Your task to perform on an android device: Open Chrome and go to settings Image 0: 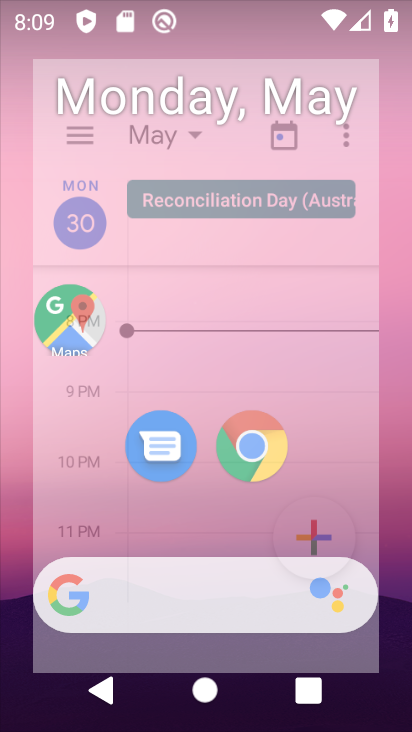
Step 0: press home button
Your task to perform on an android device: Open Chrome and go to settings Image 1: 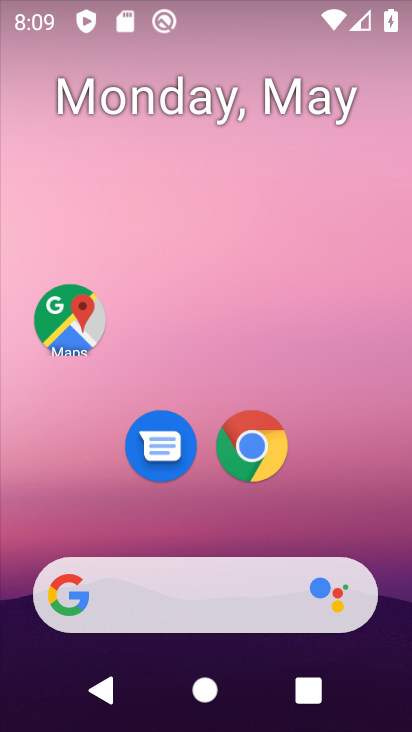
Step 1: click (250, 437)
Your task to perform on an android device: Open Chrome and go to settings Image 2: 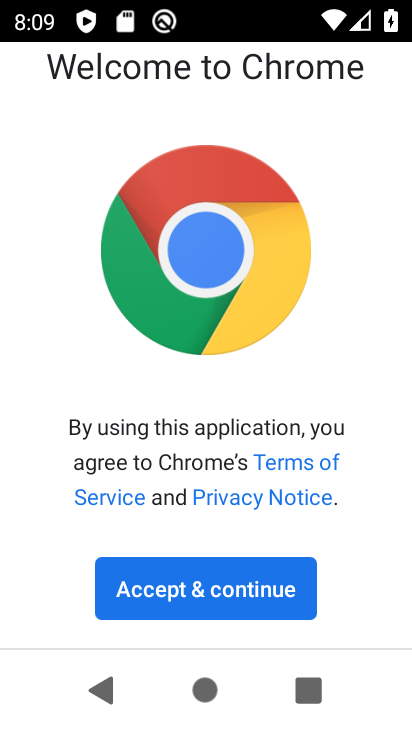
Step 2: click (200, 585)
Your task to perform on an android device: Open Chrome and go to settings Image 3: 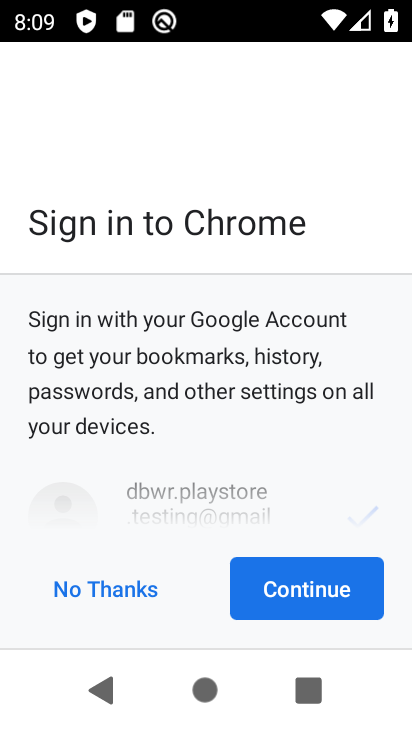
Step 3: click (306, 579)
Your task to perform on an android device: Open Chrome and go to settings Image 4: 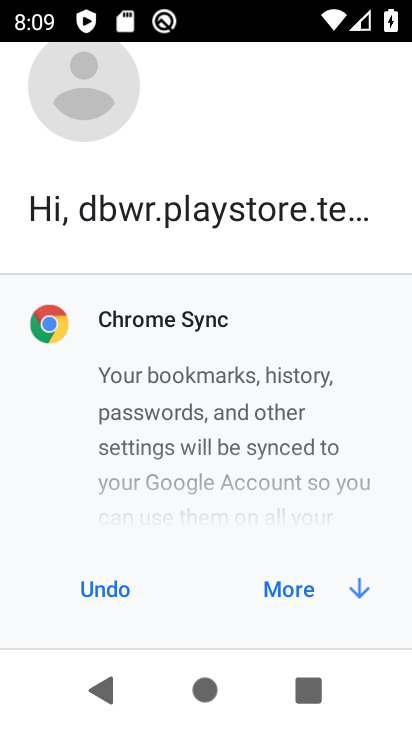
Step 4: click (298, 583)
Your task to perform on an android device: Open Chrome and go to settings Image 5: 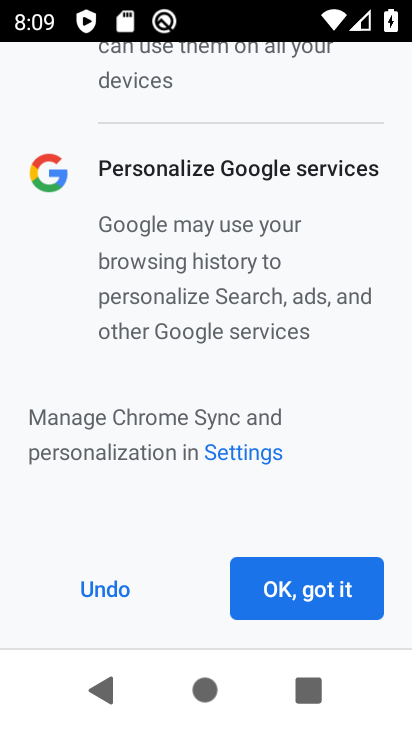
Step 5: click (298, 583)
Your task to perform on an android device: Open Chrome and go to settings Image 6: 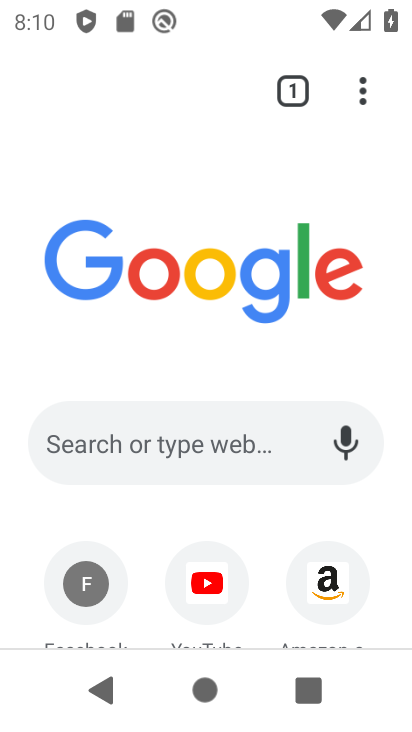
Step 6: click (360, 94)
Your task to perform on an android device: Open Chrome and go to settings Image 7: 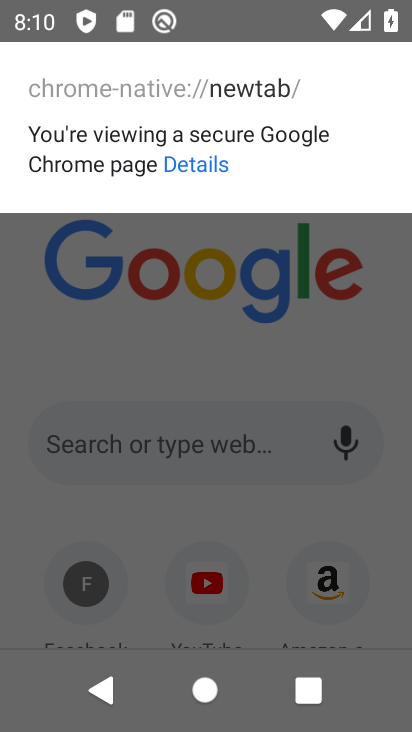
Step 7: click (244, 337)
Your task to perform on an android device: Open Chrome and go to settings Image 8: 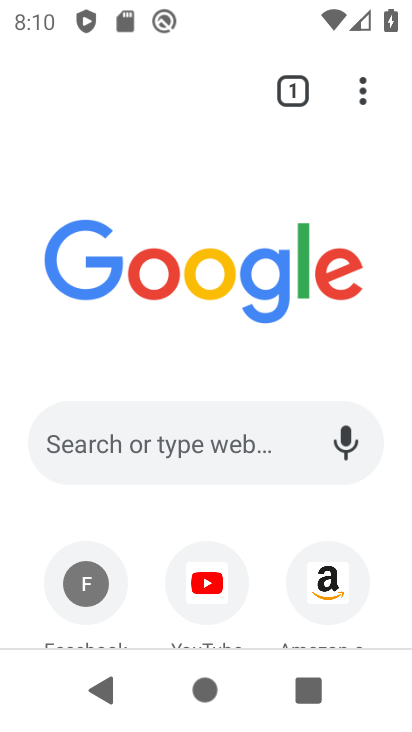
Step 8: click (362, 83)
Your task to perform on an android device: Open Chrome and go to settings Image 9: 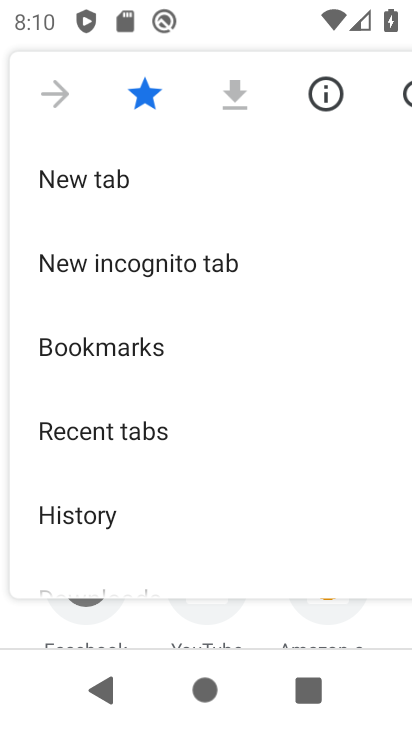
Step 9: drag from (221, 524) to (248, 299)
Your task to perform on an android device: Open Chrome and go to settings Image 10: 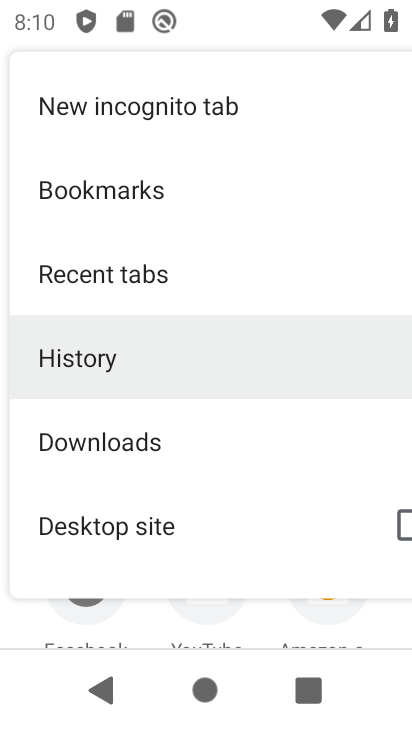
Step 10: drag from (258, 188) to (280, 105)
Your task to perform on an android device: Open Chrome and go to settings Image 11: 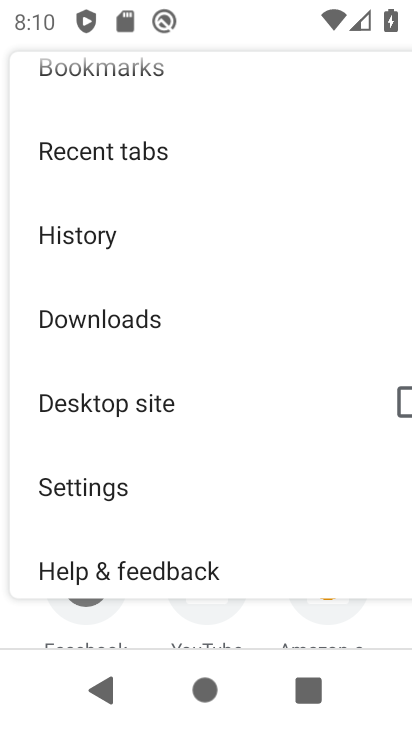
Step 11: click (137, 484)
Your task to perform on an android device: Open Chrome and go to settings Image 12: 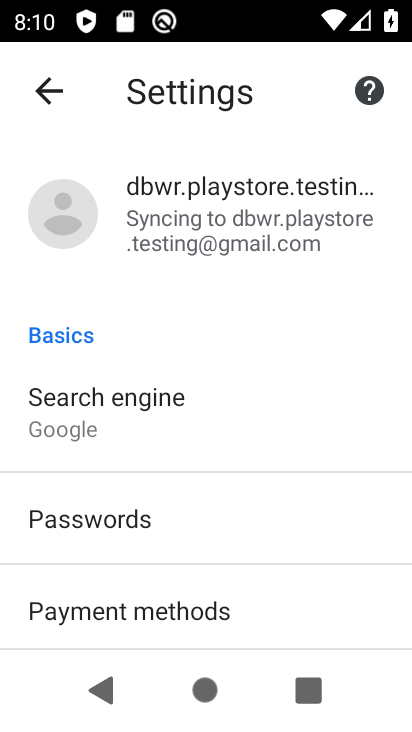
Step 12: task complete